Your task to perform on an android device: turn off wifi Image 0: 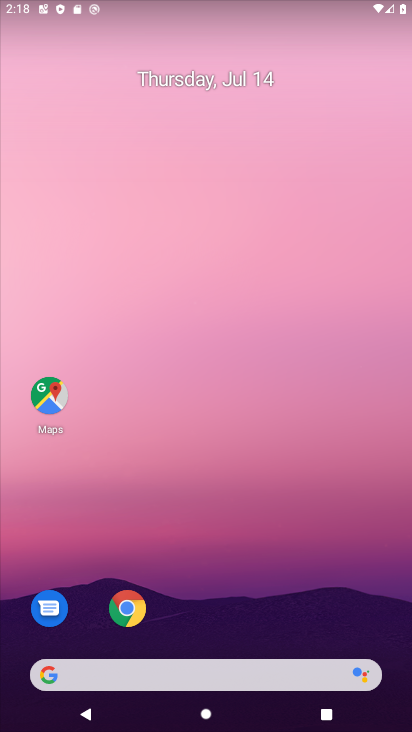
Step 0: drag from (196, 2) to (133, 515)
Your task to perform on an android device: turn off wifi Image 1: 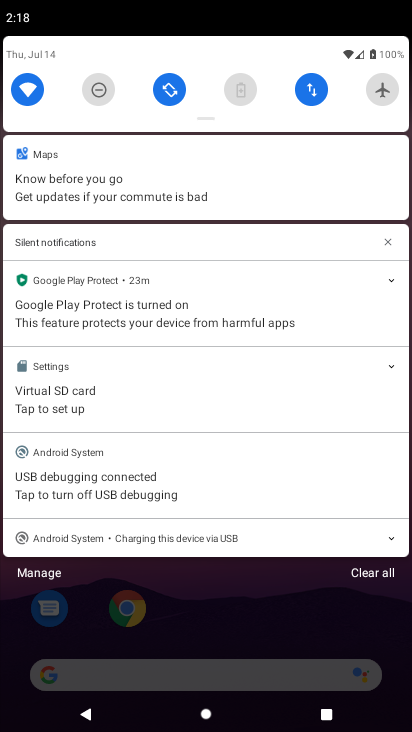
Step 1: click (19, 83)
Your task to perform on an android device: turn off wifi Image 2: 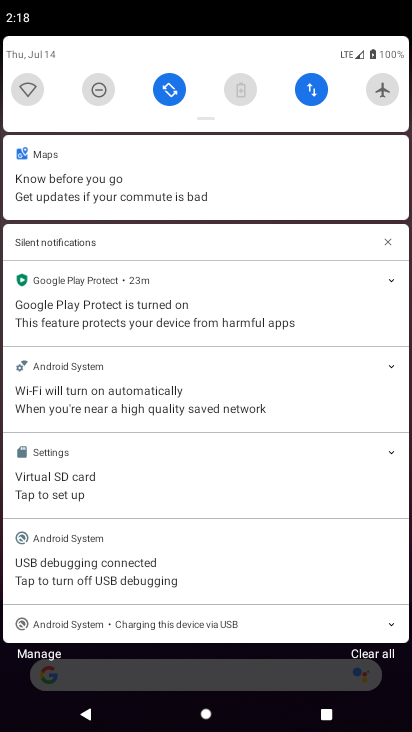
Step 2: task complete